Your task to perform on an android device: choose inbox layout in the gmail app Image 0: 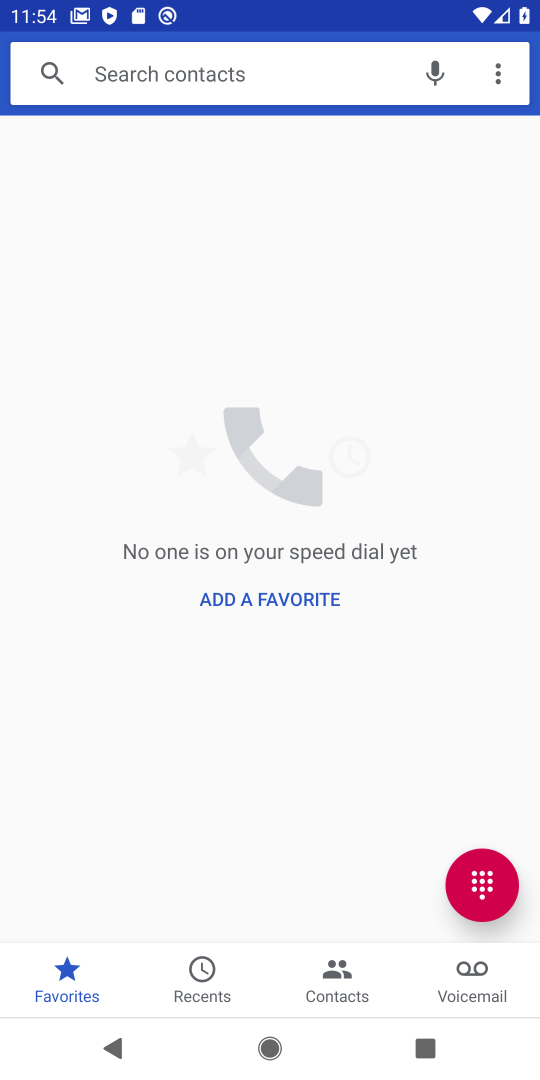
Step 0: task complete